Your task to perform on an android device: Go to Android settings Image 0: 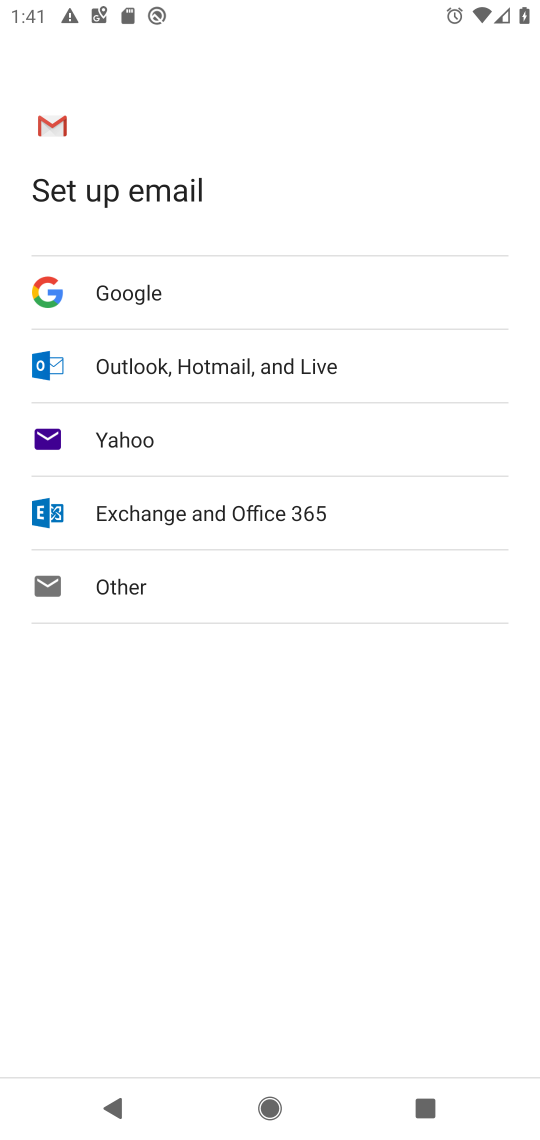
Step 0: press home button
Your task to perform on an android device: Go to Android settings Image 1: 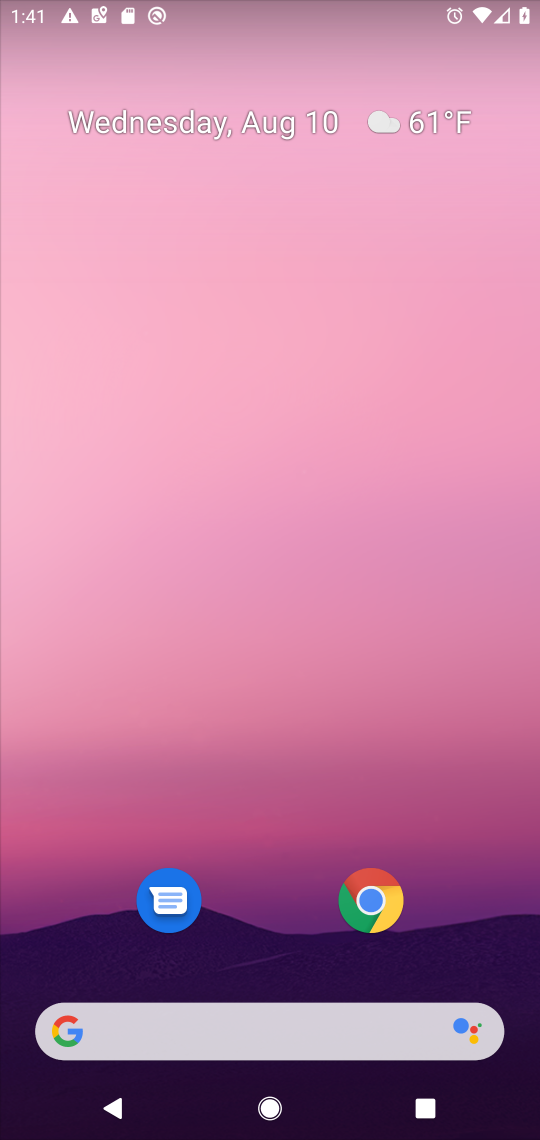
Step 1: drag from (274, 812) to (357, 6)
Your task to perform on an android device: Go to Android settings Image 2: 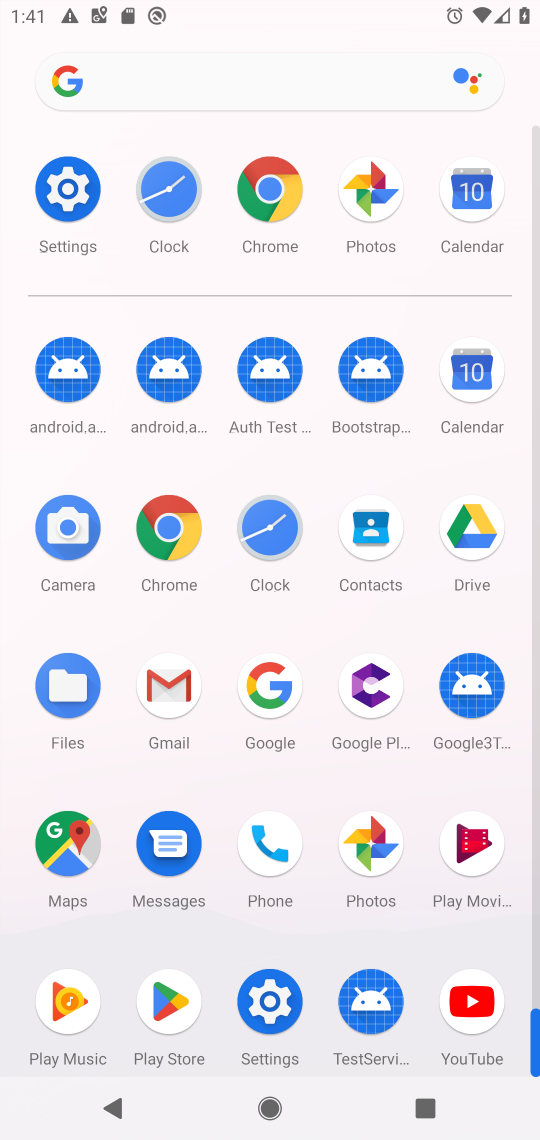
Step 2: click (72, 188)
Your task to perform on an android device: Go to Android settings Image 3: 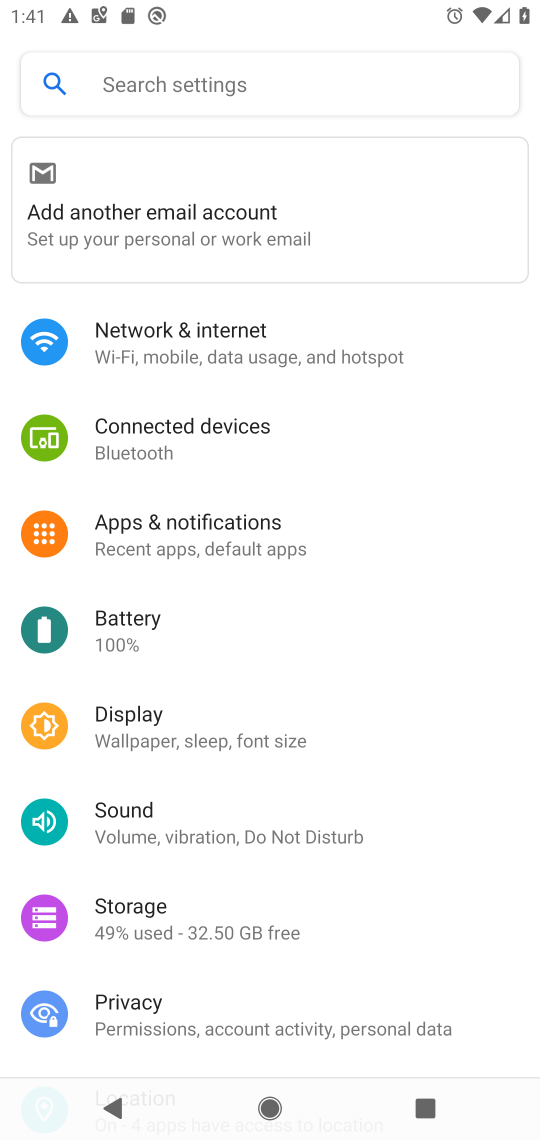
Step 3: drag from (311, 988) to (385, 0)
Your task to perform on an android device: Go to Android settings Image 4: 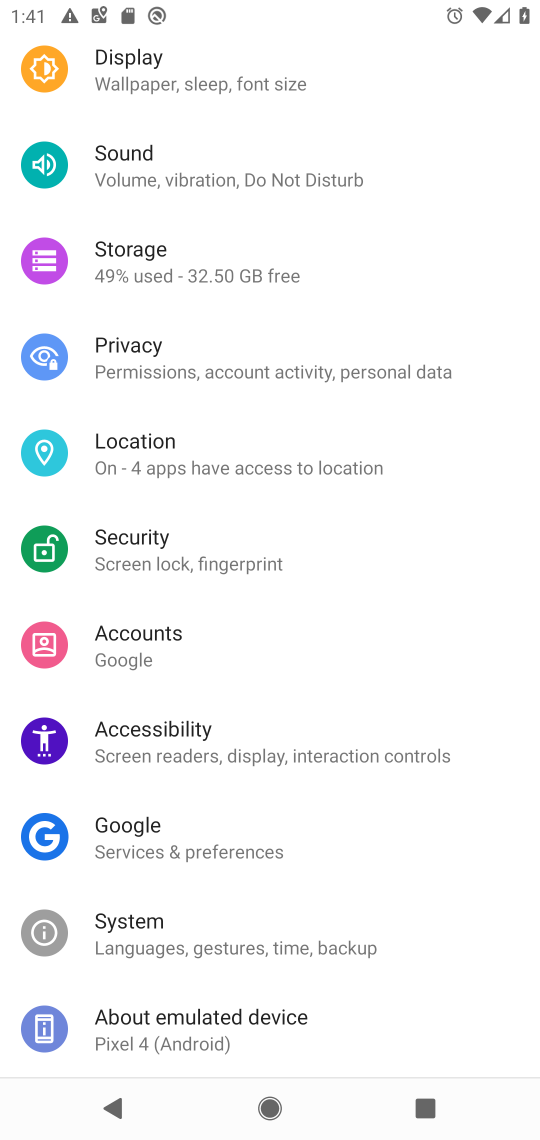
Step 4: click (238, 1024)
Your task to perform on an android device: Go to Android settings Image 5: 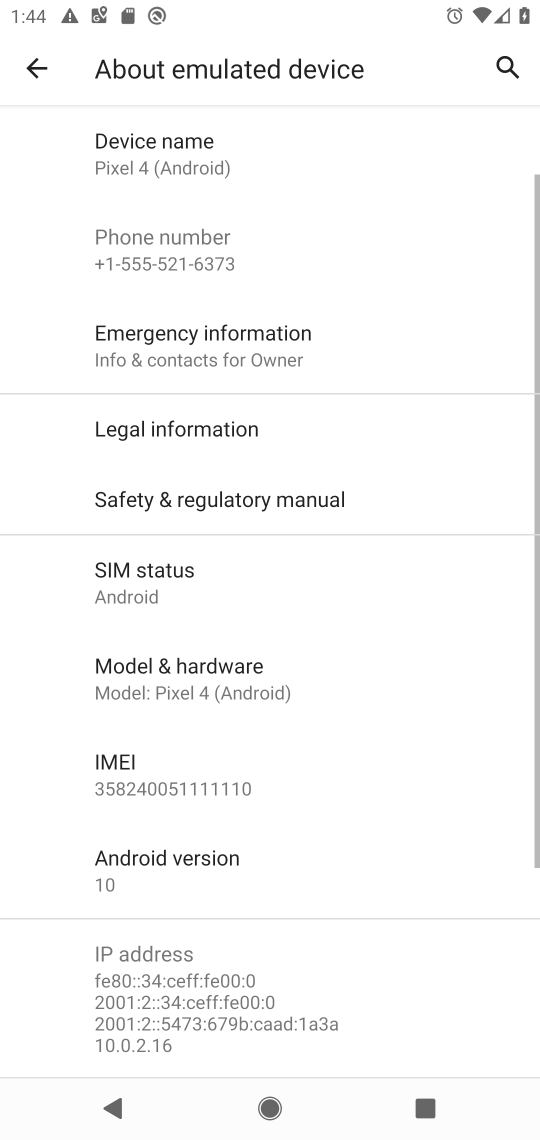
Step 5: task complete